Your task to perform on an android device: turn notification dots on Image 0: 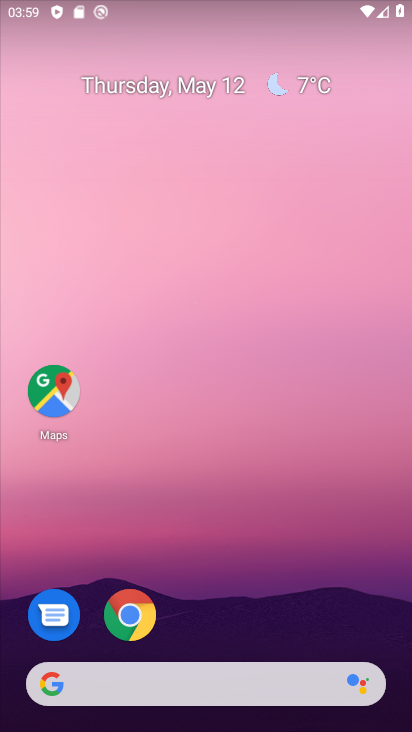
Step 0: drag from (312, 624) to (259, 71)
Your task to perform on an android device: turn notification dots on Image 1: 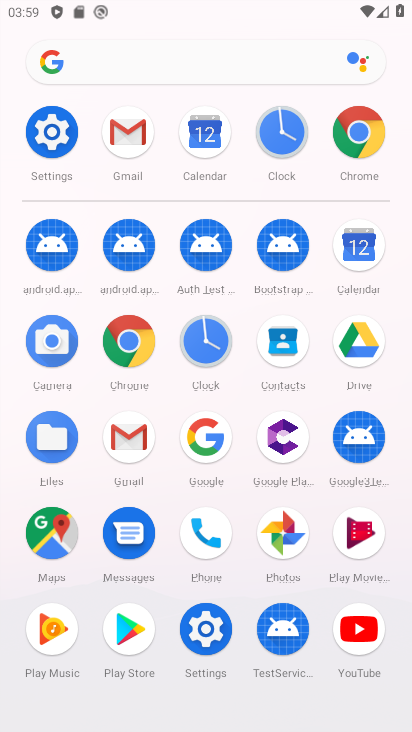
Step 1: click (217, 638)
Your task to perform on an android device: turn notification dots on Image 2: 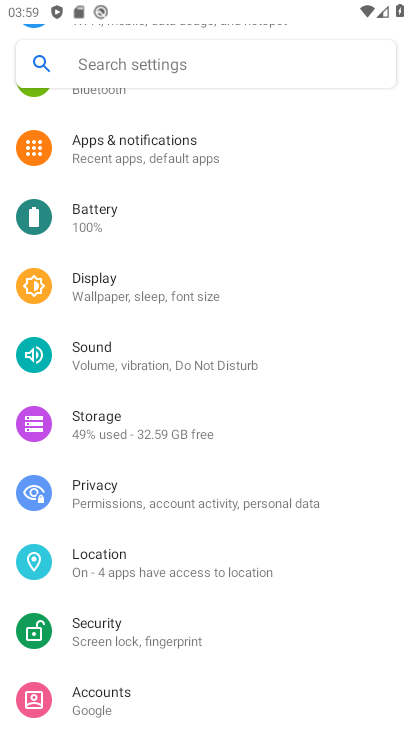
Step 2: click (149, 138)
Your task to perform on an android device: turn notification dots on Image 3: 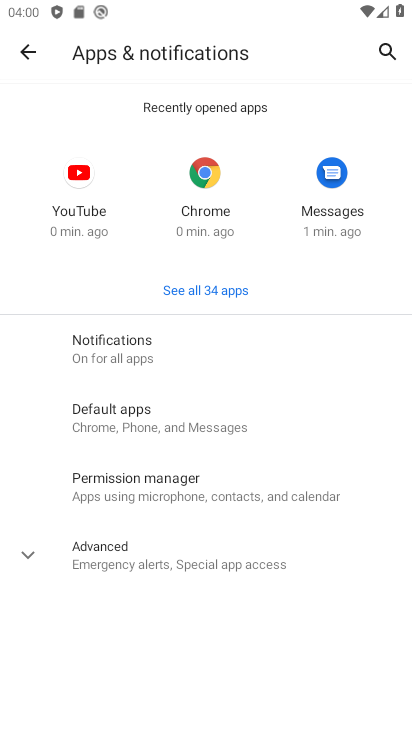
Step 3: click (127, 341)
Your task to perform on an android device: turn notification dots on Image 4: 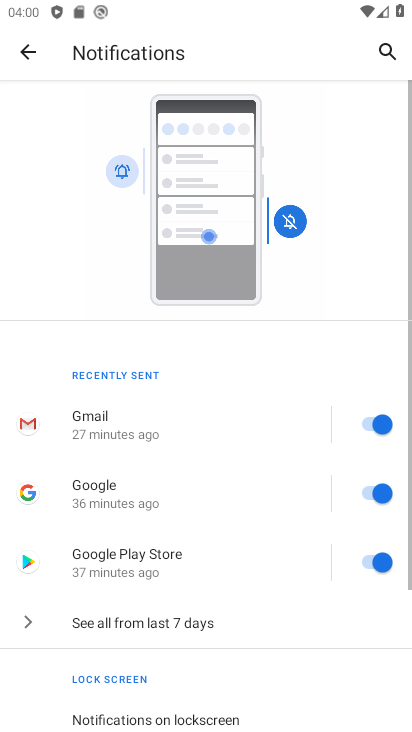
Step 4: drag from (240, 643) to (219, 97)
Your task to perform on an android device: turn notification dots on Image 5: 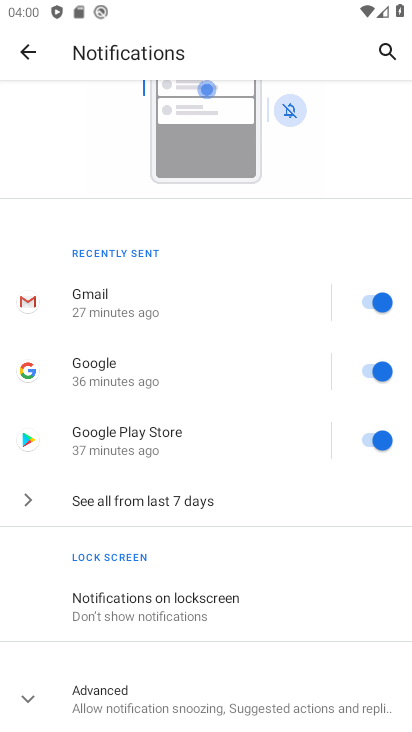
Step 5: drag from (192, 703) to (182, 269)
Your task to perform on an android device: turn notification dots on Image 6: 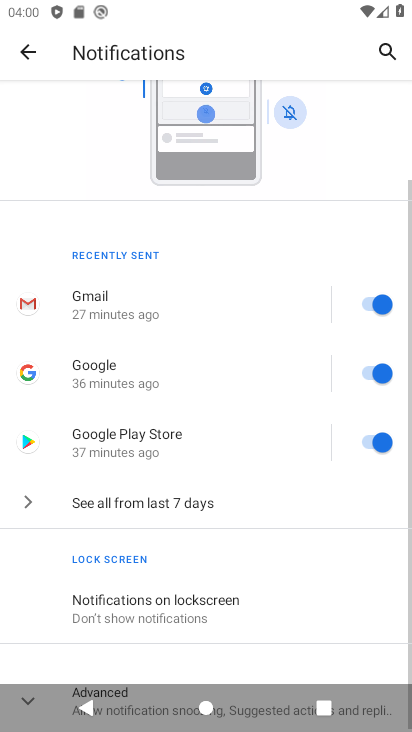
Step 6: click (111, 664)
Your task to perform on an android device: turn notification dots on Image 7: 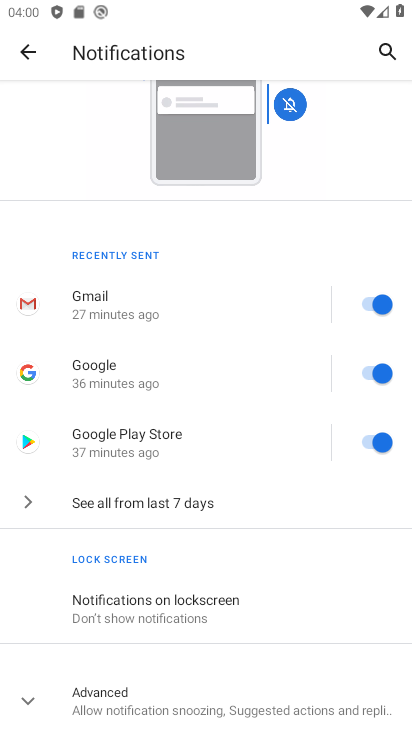
Step 7: click (116, 696)
Your task to perform on an android device: turn notification dots on Image 8: 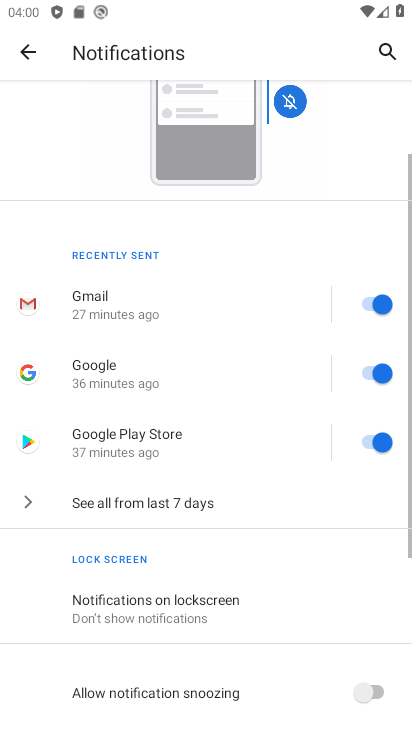
Step 8: drag from (192, 668) to (170, 290)
Your task to perform on an android device: turn notification dots on Image 9: 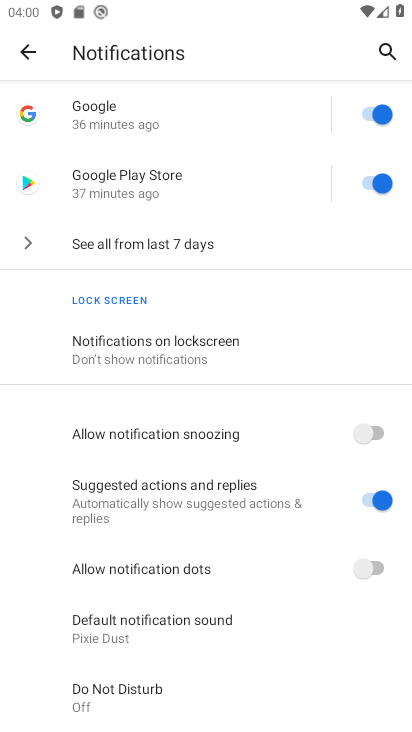
Step 9: click (361, 563)
Your task to perform on an android device: turn notification dots on Image 10: 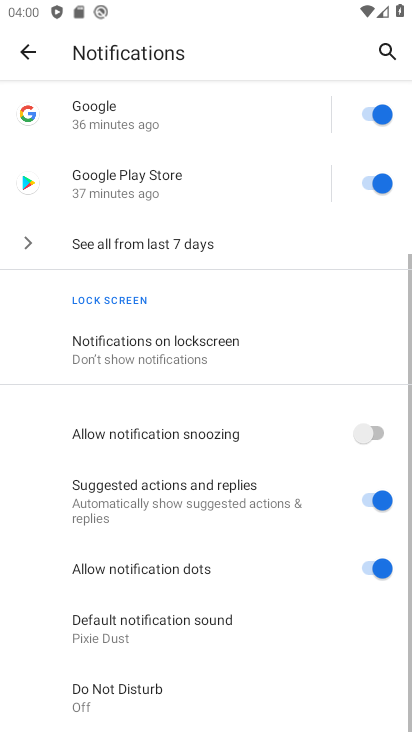
Step 10: task complete